Your task to perform on an android device: Open Yahoo.com Image 0: 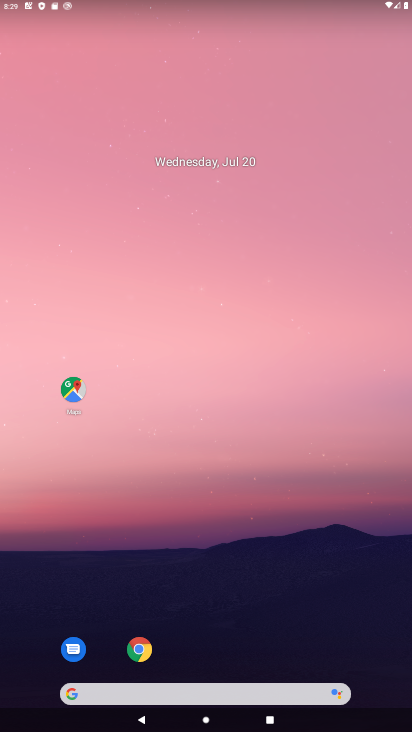
Step 0: click (142, 651)
Your task to perform on an android device: Open Yahoo.com Image 1: 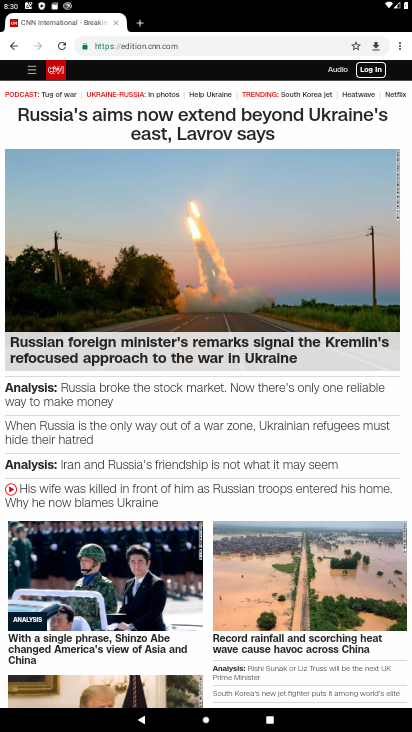
Step 1: click (223, 46)
Your task to perform on an android device: Open Yahoo.com Image 2: 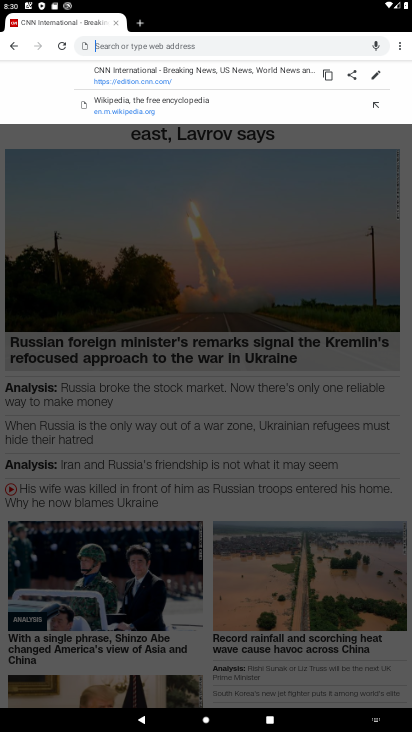
Step 2: type "Yahoo.com"
Your task to perform on an android device: Open Yahoo.com Image 3: 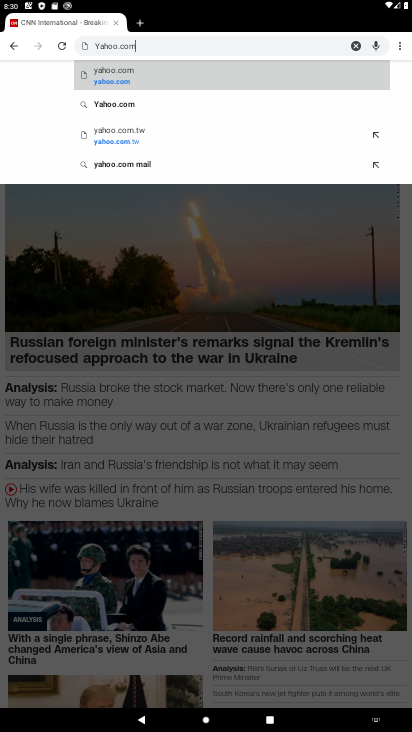
Step 3: click (126, 109)
Your task to perform on an android device: Open Yahoo.com Image 4: 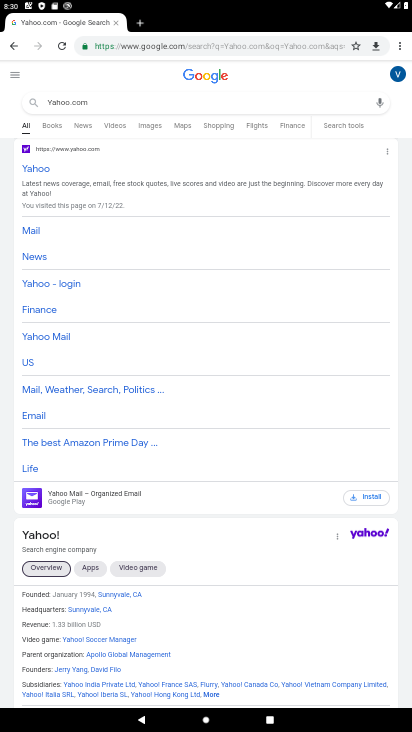
Step 4: click (44, 172)
Your task to perform on an android device: Open Yahoo.com Image 5: 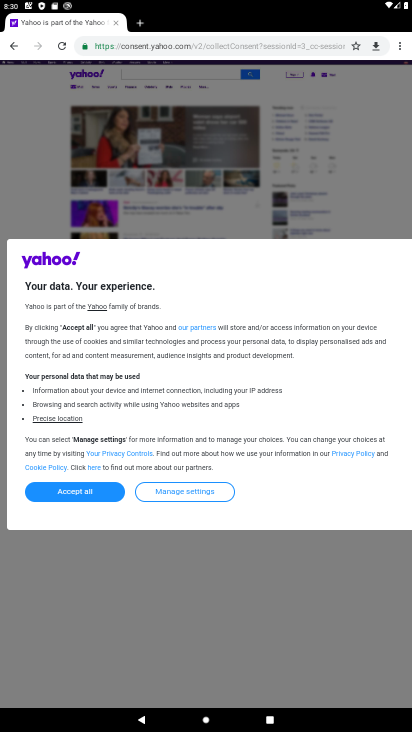
Step 5: click (81, 490)
Your task to perform on an android device: Open Yahoo.com Image 6: 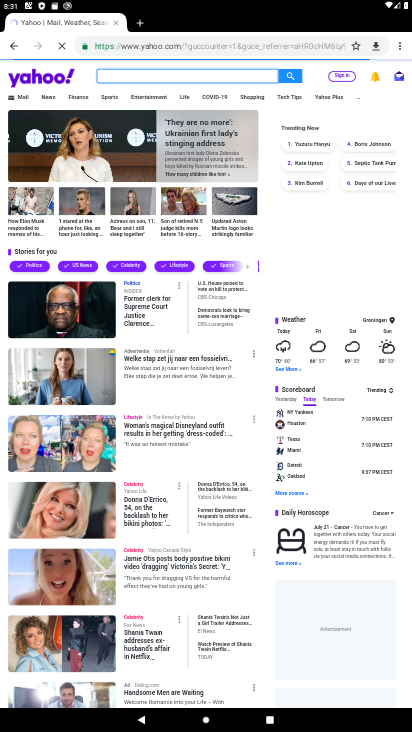
Step 6: task complete